Your task to perform on an android device: change the clock style Image 0: 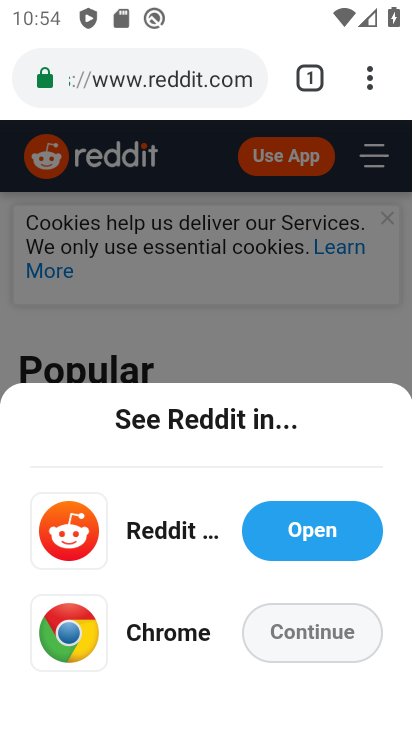
Step 0: press home button
Your task to perform on an android device: change the clock style Image 1: 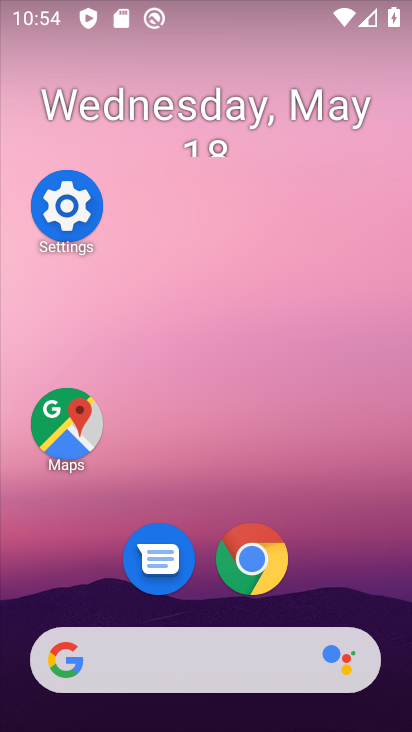
Step 1: drag from (335, 536) to (333, 161)
Your task to perform on an android device: change the clock style Image 2: 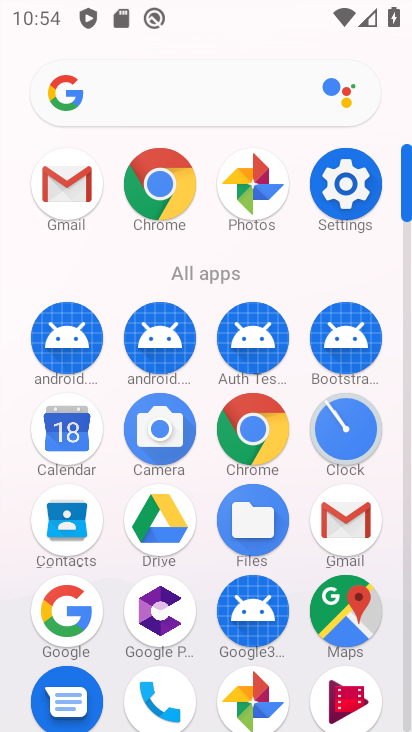
Step 2: drag from (341, 418) to (167, 252)
Your task to perform on an android device: change the clock style Image 3: 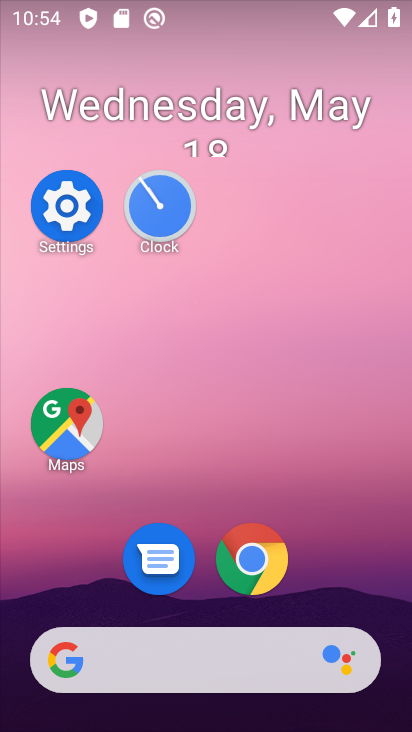
Step 3: click (159, 222)
Your task to perform on an android device: change the clock style Image 4: 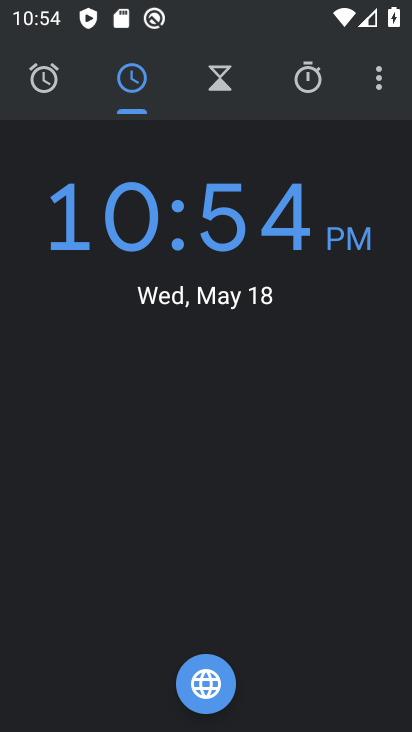
Step 4: click (377, 79)
Your task to perform on an android device: change the clock style Image 5: 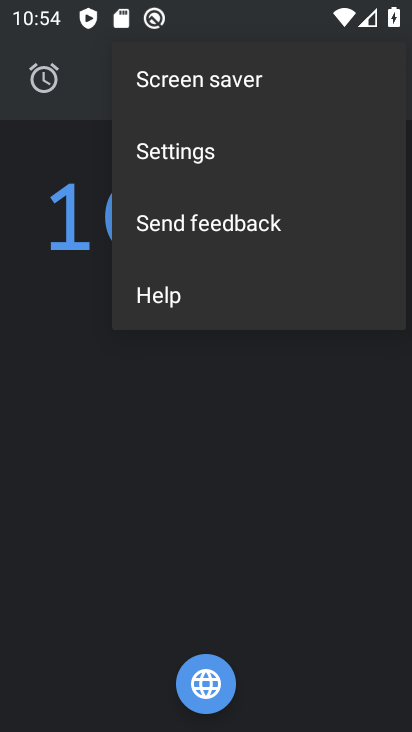
Step 5: click (202, 147)
Your task to perform on an android device: change the clock style Image 6: 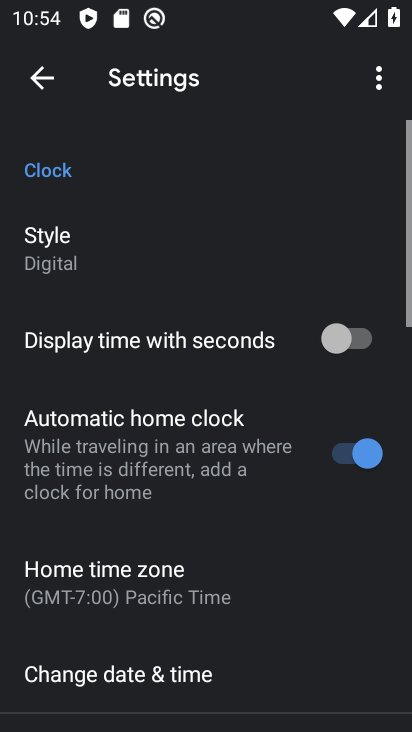
Step 6: click (93, 248)
Your task to perform on an android device: change the clock style Image 7: 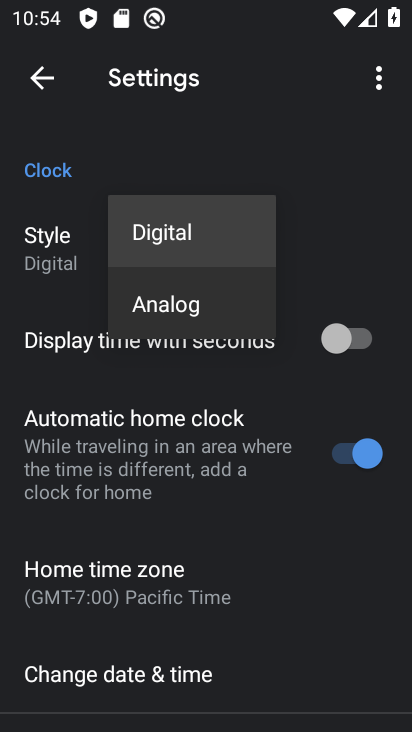
Step 7: click (184, 307)
Your task to perform on an android device: change the clock style Image 8: 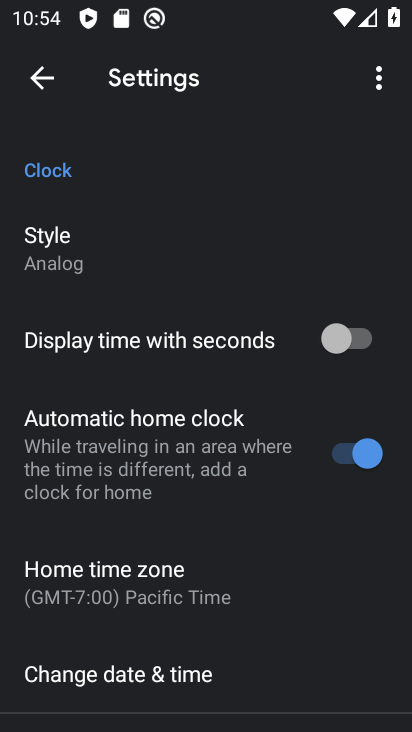
Step 8: task complete